Your task to perform on an android device: find which apps use the phone's location Image 0: 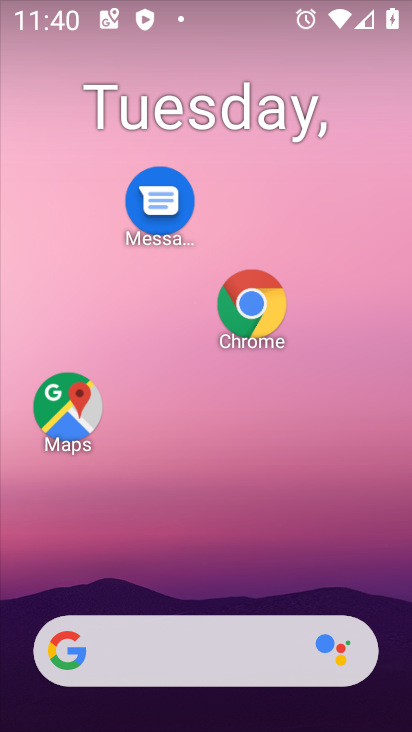
Step 0: drag from (249, 568) to (285, 244)
Your task to perform on an android device: find which apps use the phone's location Image 1: 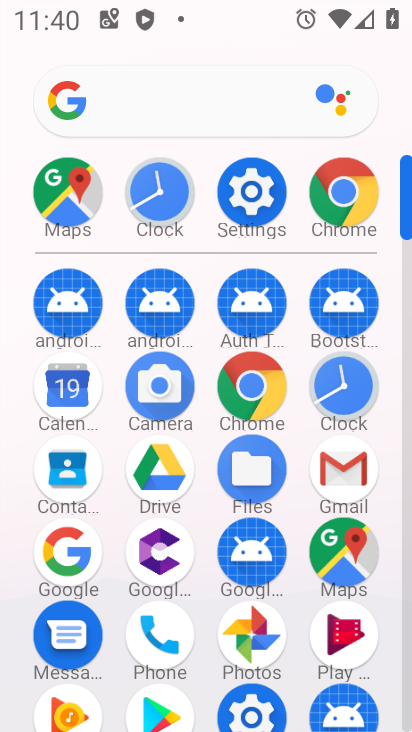
Step 1: click (249, 187)
Your task to perform on an android device: find which apps use the phone's location Image 2: 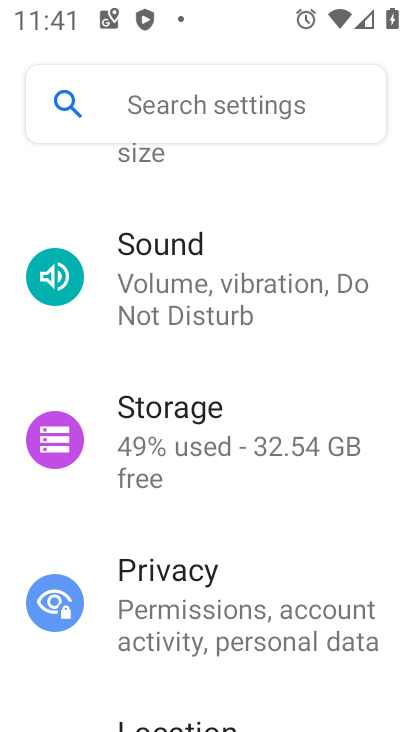
Step 2: drag from (286, 572) to (336, 227)
Your task to perform on an android device: find which apps use the phone's location Image 3: 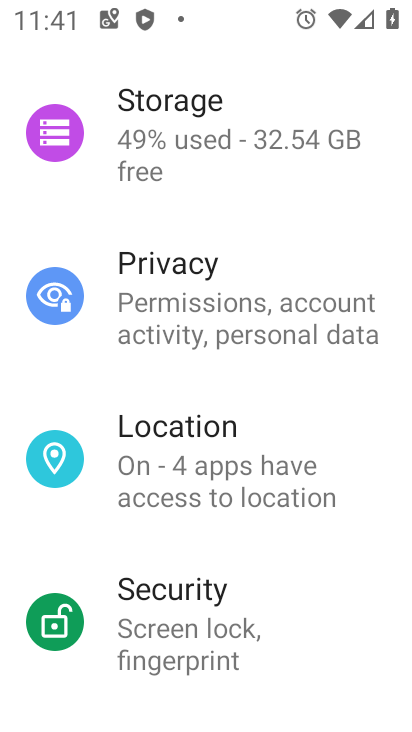
Step 3: click (249, 464)
Your task to perform on an android device: find which apps use the phone's location Image 4: 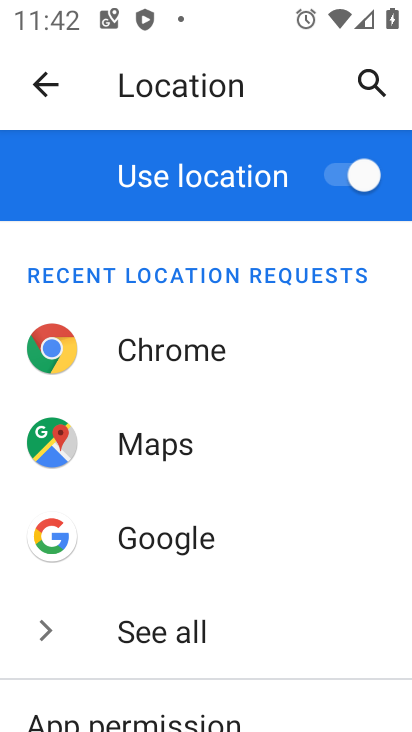
Step 4: task complete